Your task to perform on an android device: Empty the shopping cart on bestbuy.com. Search for razer thresher on bestbuy.com, select the first entry, and add it to the cart. Image 0: 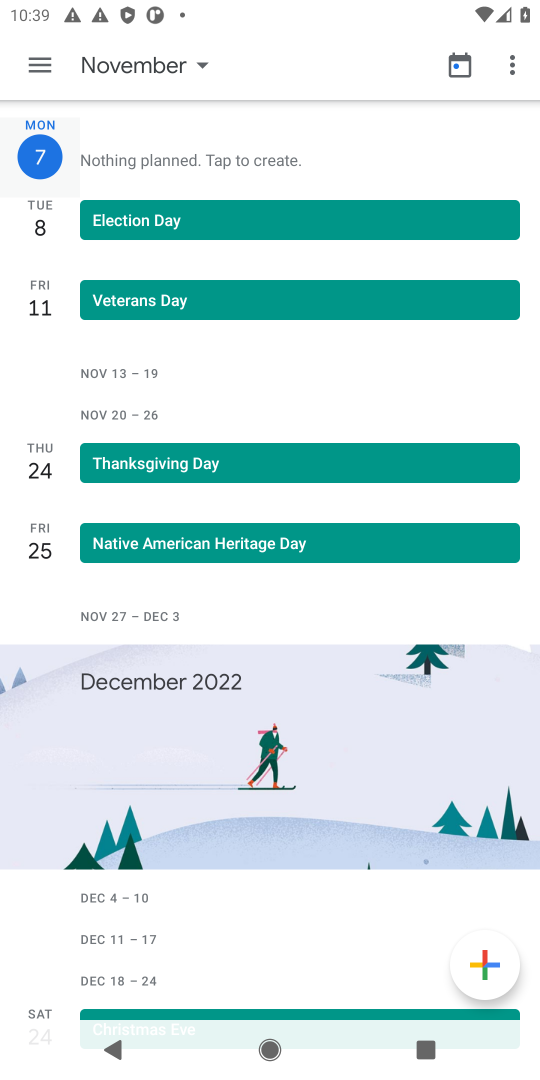
Step 0: task complete